Your task to perform on an android device: check battery use Image 0: 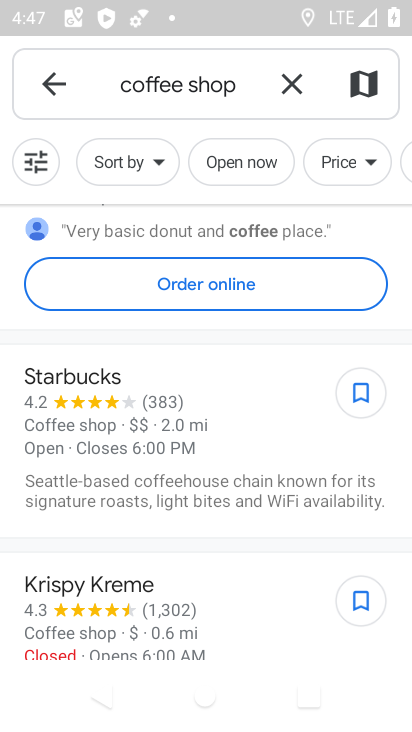
Step 0: press home button
Your task to perform on an android device: check battery use Image 1: 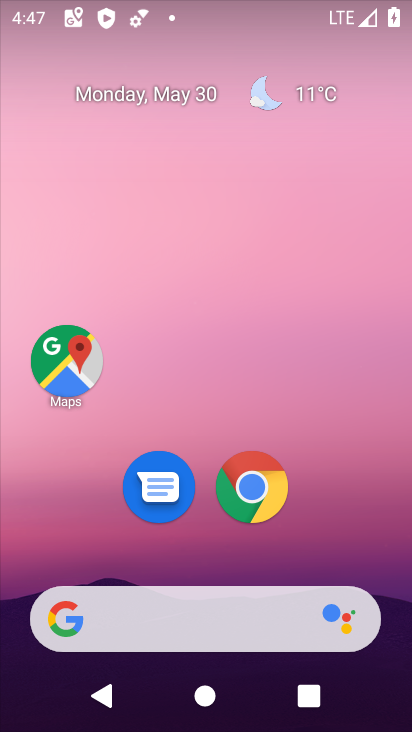
Step 1: drag from (398, 622) to (299, 112)
Your task to perform on an android device: check battery use Image 2: 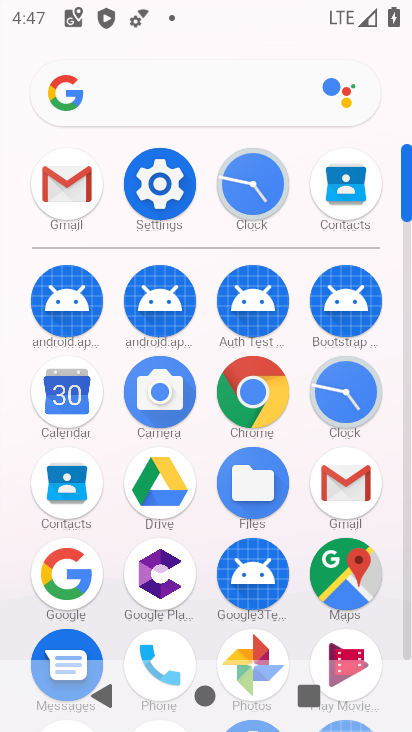
Step 2: click (410, 644)
Your task to perform on an android device: check battery use Image 3: 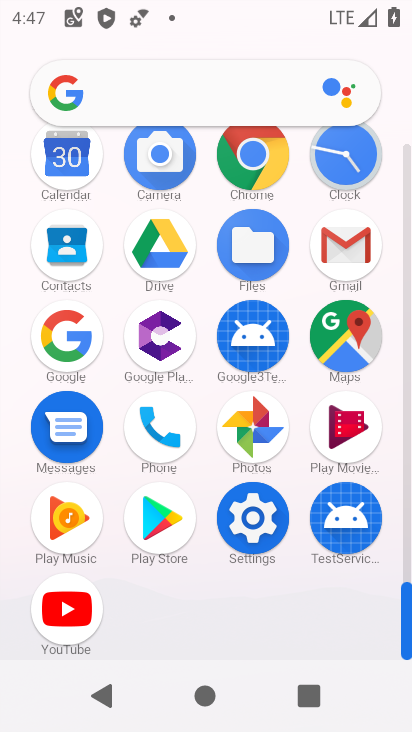
Step 3: click (251, 516)
Your task to perform on an android device: check battery use Image 4: 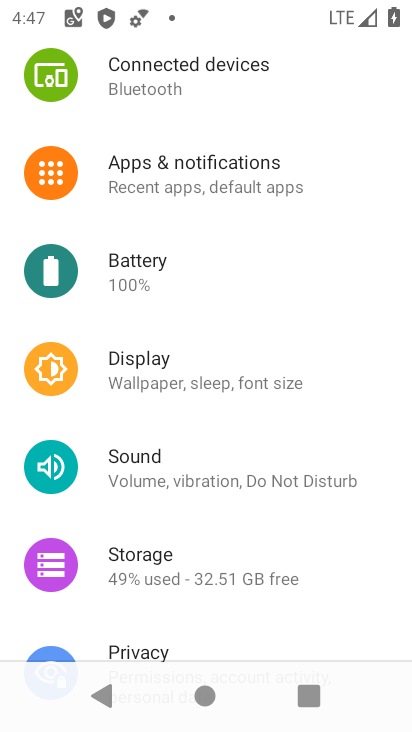
Step 4: drag from (343, 182) to (320, 456)
Your task to perform on an android device: check battery use Image 5: 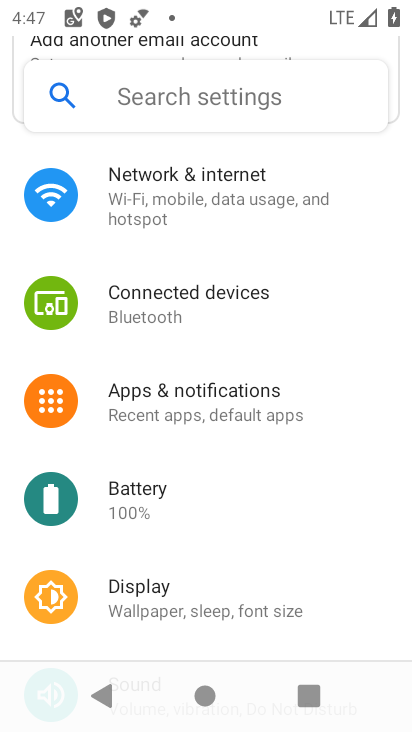
Step 5: click (139, 176)
Your task to perform on an android device: check battery use Image 6: 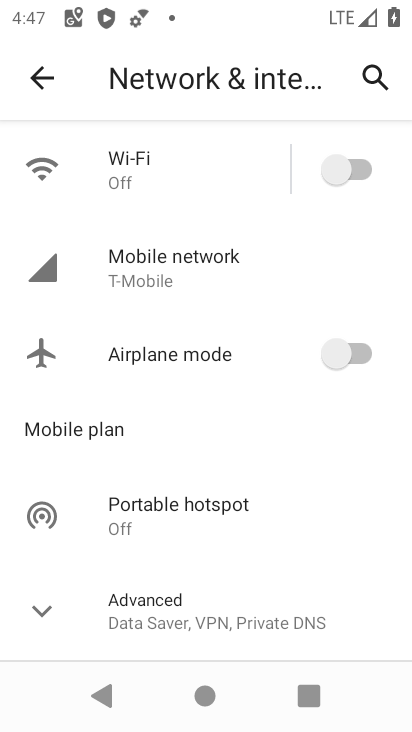
Step 6: press back button
Your task to perform on an android device: check battery use Image 7: 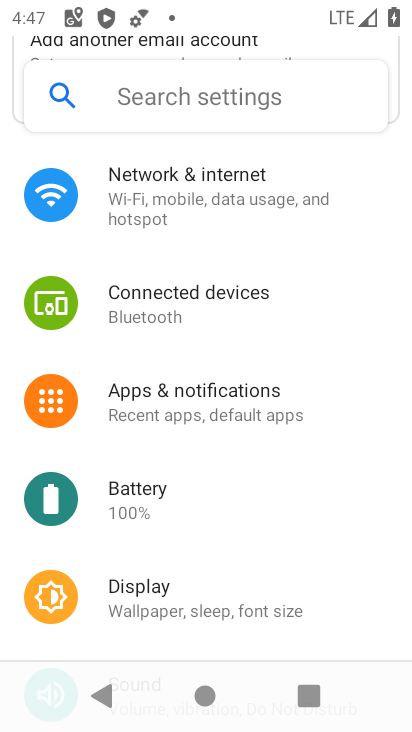
Step 7: click (140, 491)
Your task to perform on an android device: check battery use Image 8: 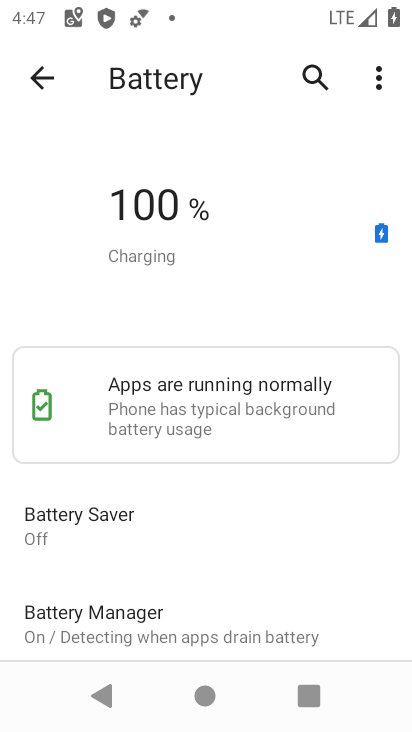
Step 8: drag from (251, 579) to (250, 234)
Your task to perform on an android device: check battery use Image 9: 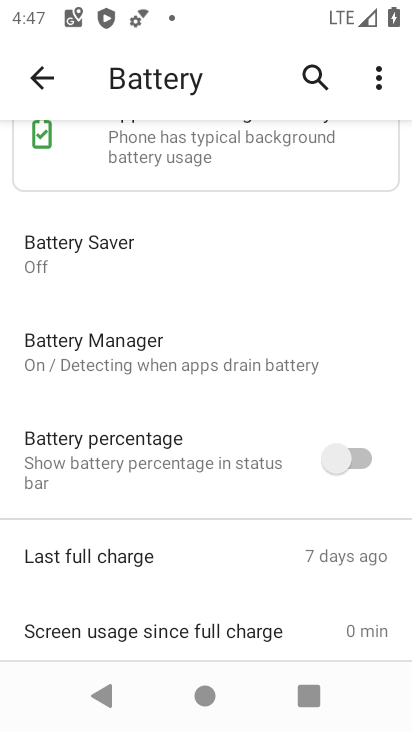
Step 9: drag from (290, 487) to (262, 78)
Your task to perform on an android device: check battery use Image 10: 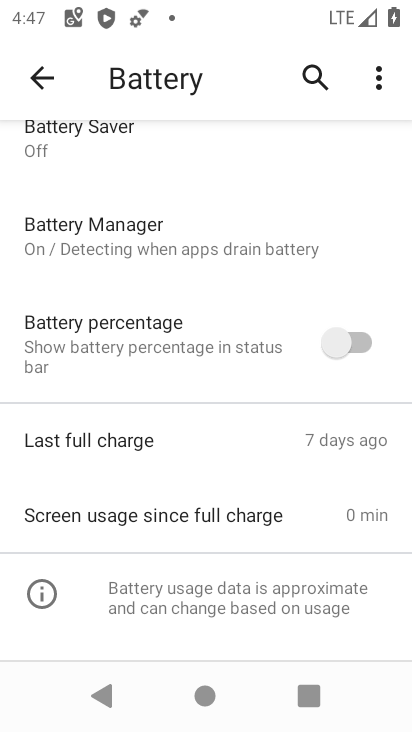
Step 10: click (381, 81)
Your task to perform on an android device: check battery use Image 11: 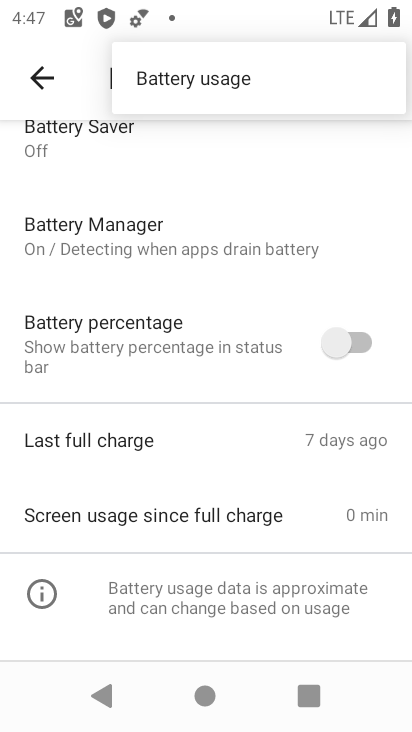
Step 11: click (179, 81)
Your task to perform on an android device: check battery use Image 12: 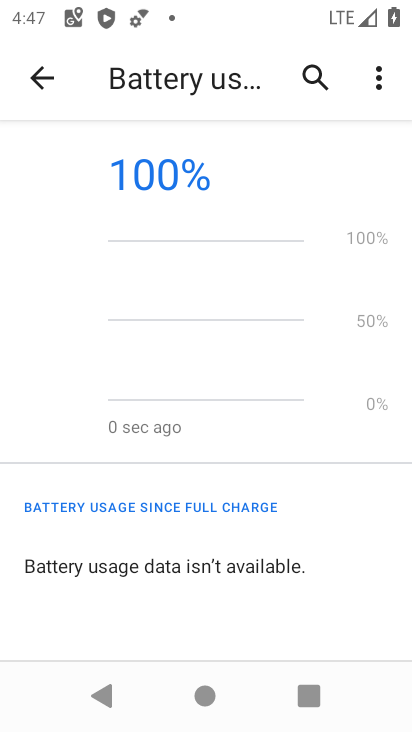
Step 12: task complete